Your task to perform on an android device: toggle pop-ups in chrome Image 0: 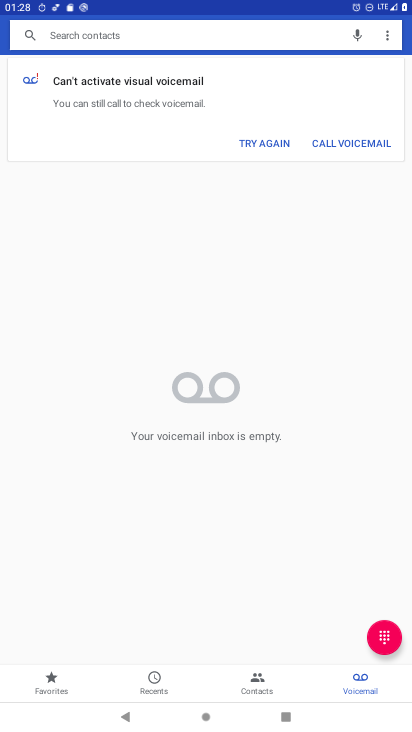
Step 0: press home button
Your task to perform on an android device: toggle pop-ups in chrome Image 1: 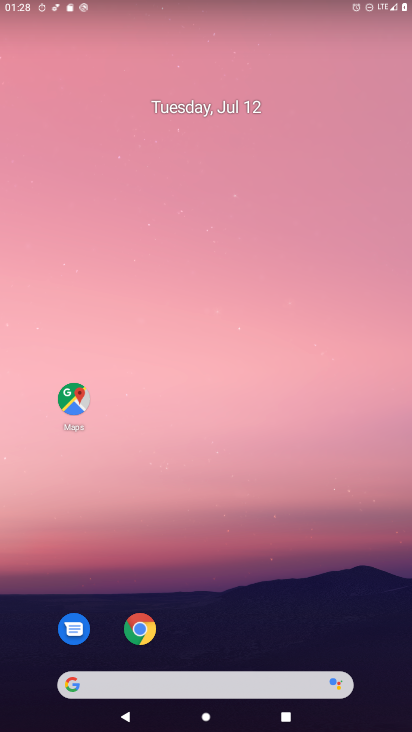
Step 1: click (144, 628)
Your task to perform on an android device: toggle pop-ups in chrome Image 2: 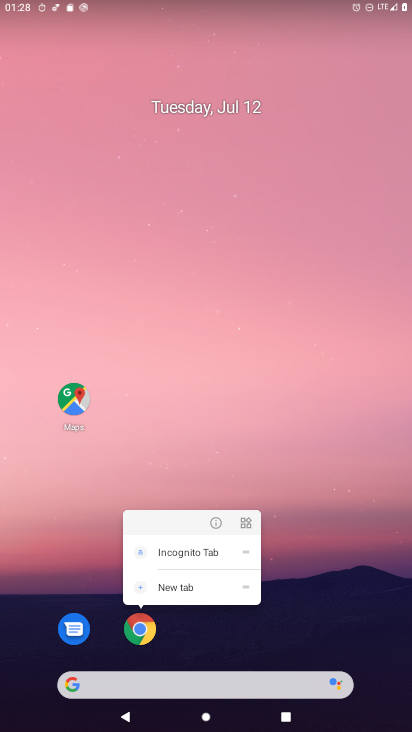
Step 2: click (137, 626)
Your task to perform on an android device: toggle pop-ups in chrome Image 3: 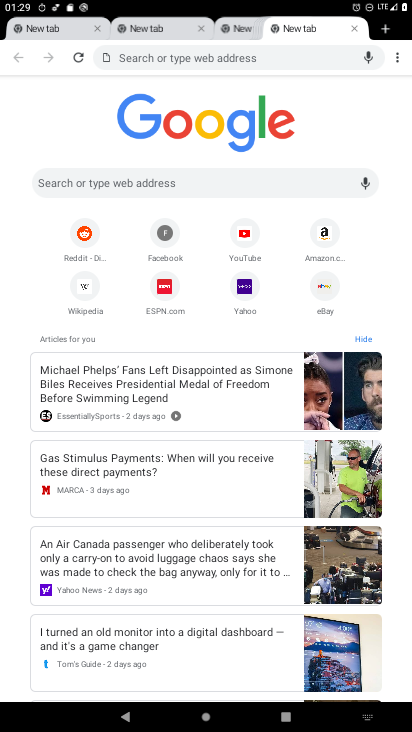
Step 3: click (396, 54)
Your task to perform on an android device: toggle pop-ups in chrome Image 4: 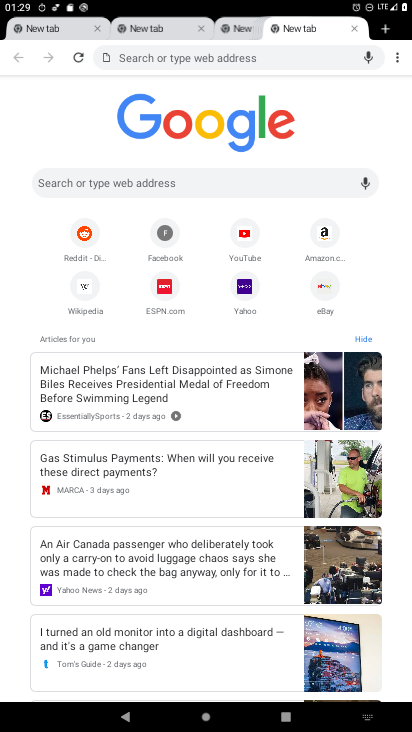
Step 4: click (399, 45)
Your task to perform on an android device: toggle pop-ups in chrome Image 5: 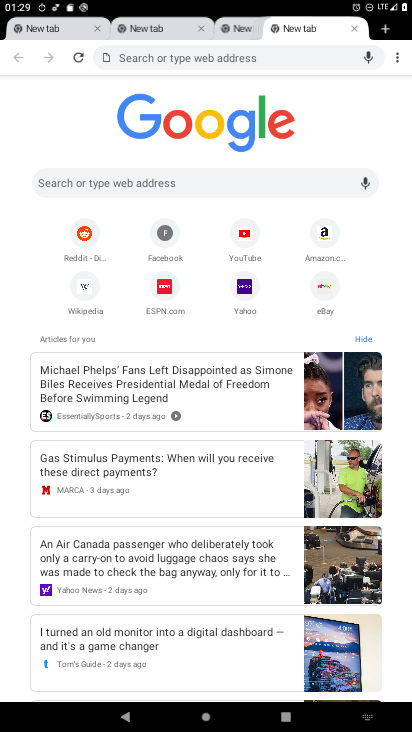
Step 5: task complete